Your task to perform on an android device: search for console tables on article.com Image 0: 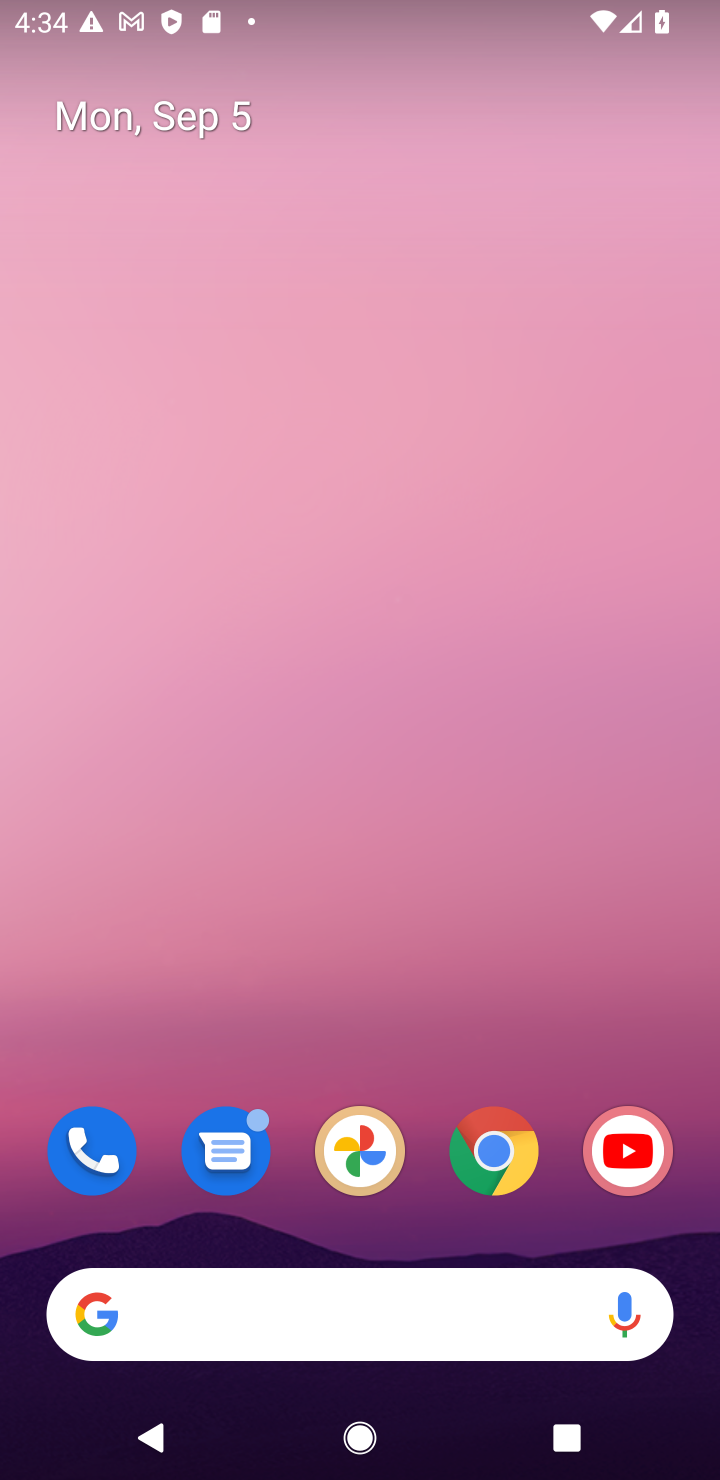
Step 0: click (515, 1178)
Your task to perform on an android device: search for console tables on article.com Image 1: 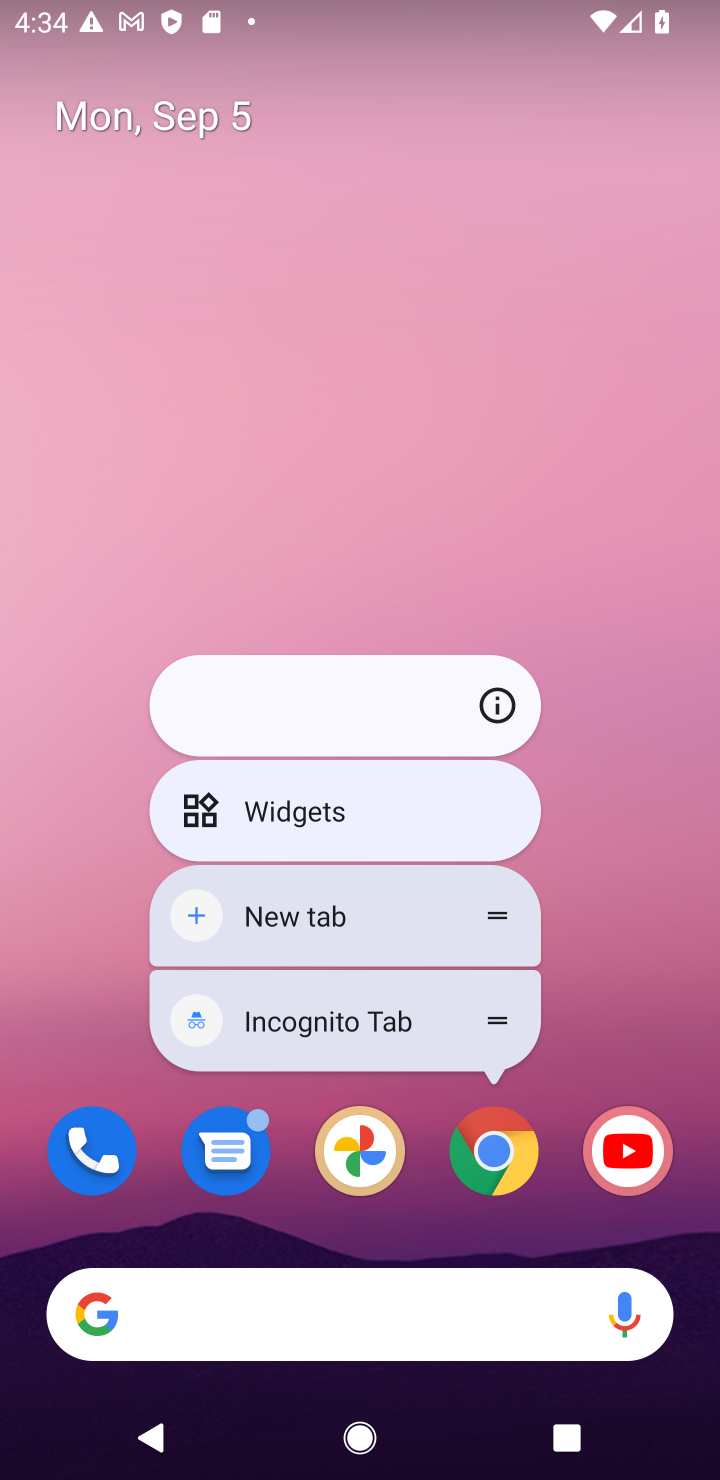
Step 1: click (515, 1178)
Your task to perform on an android device: search for console tables on article.com Image 2: 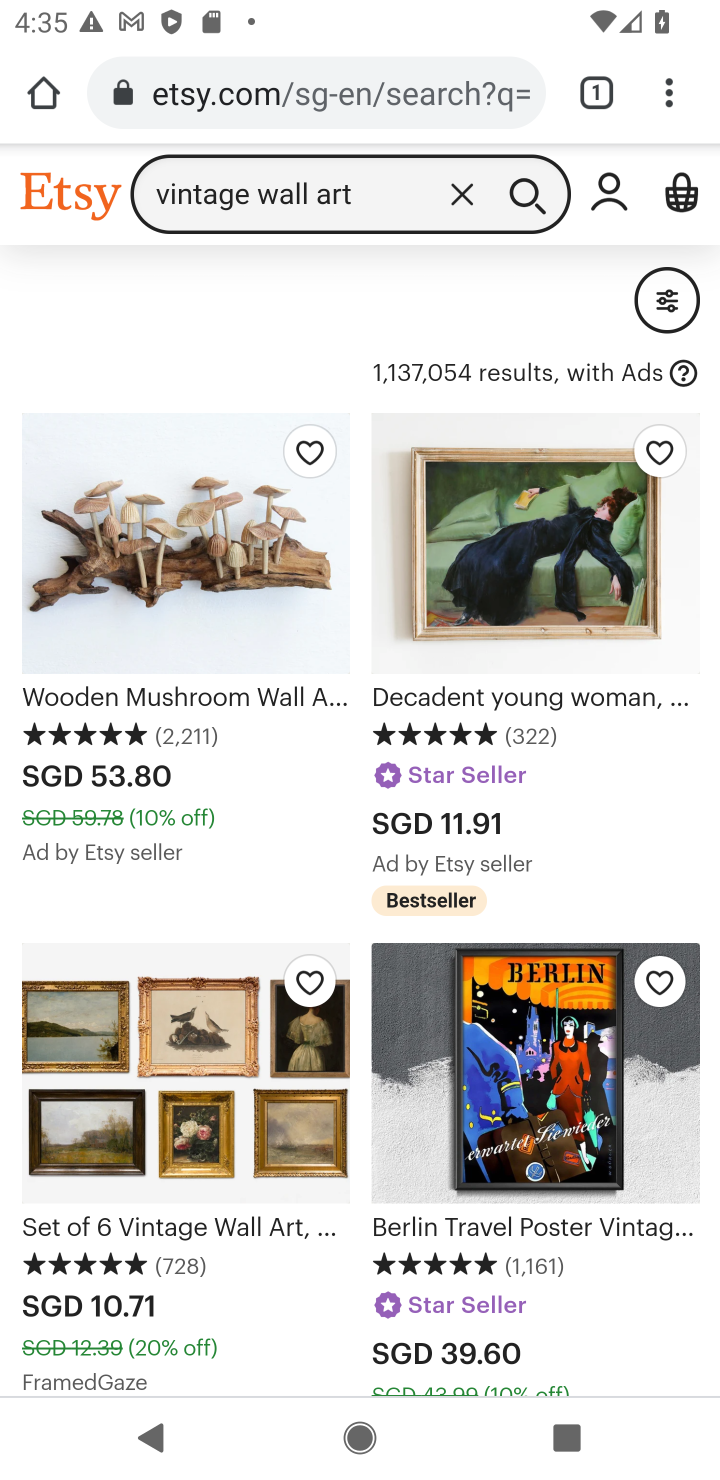
Step 2: click (489, 98)
Your task to perform on an android device: search for console tables on article.com Image 3: 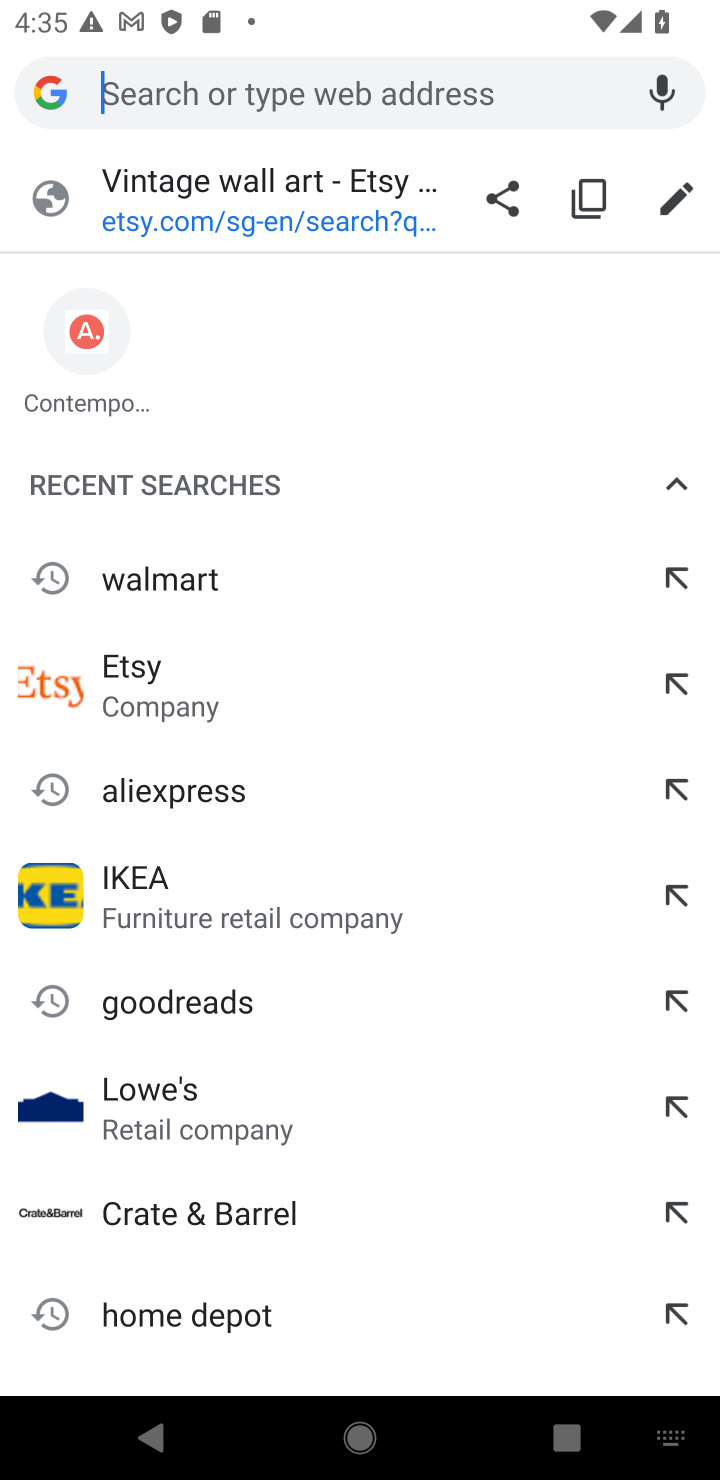
Step 3: type "article.com"
Your task to perform on an android device: search for console tables on article.com Image 4: 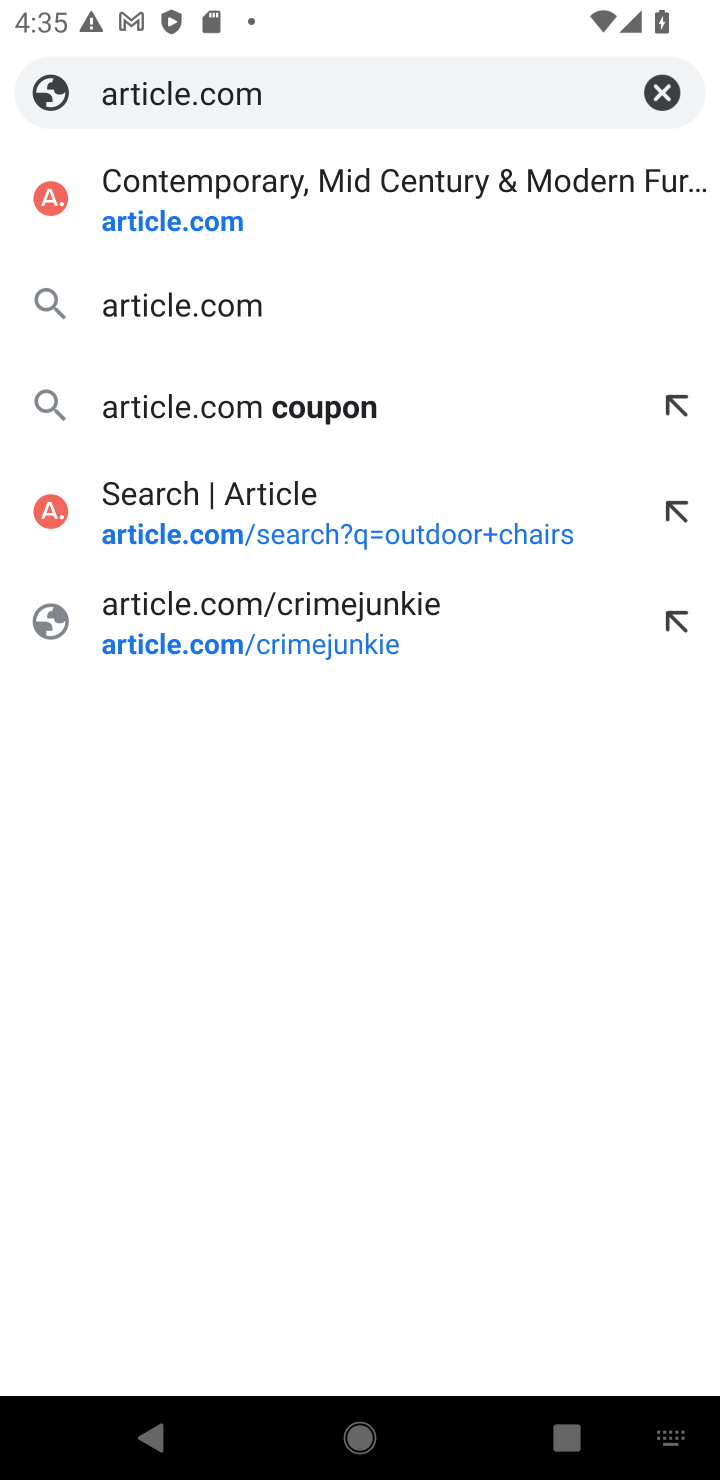
Step 4: click (308, 195)
Your task to perform on an android device: search for console tables on article.com Image 5: 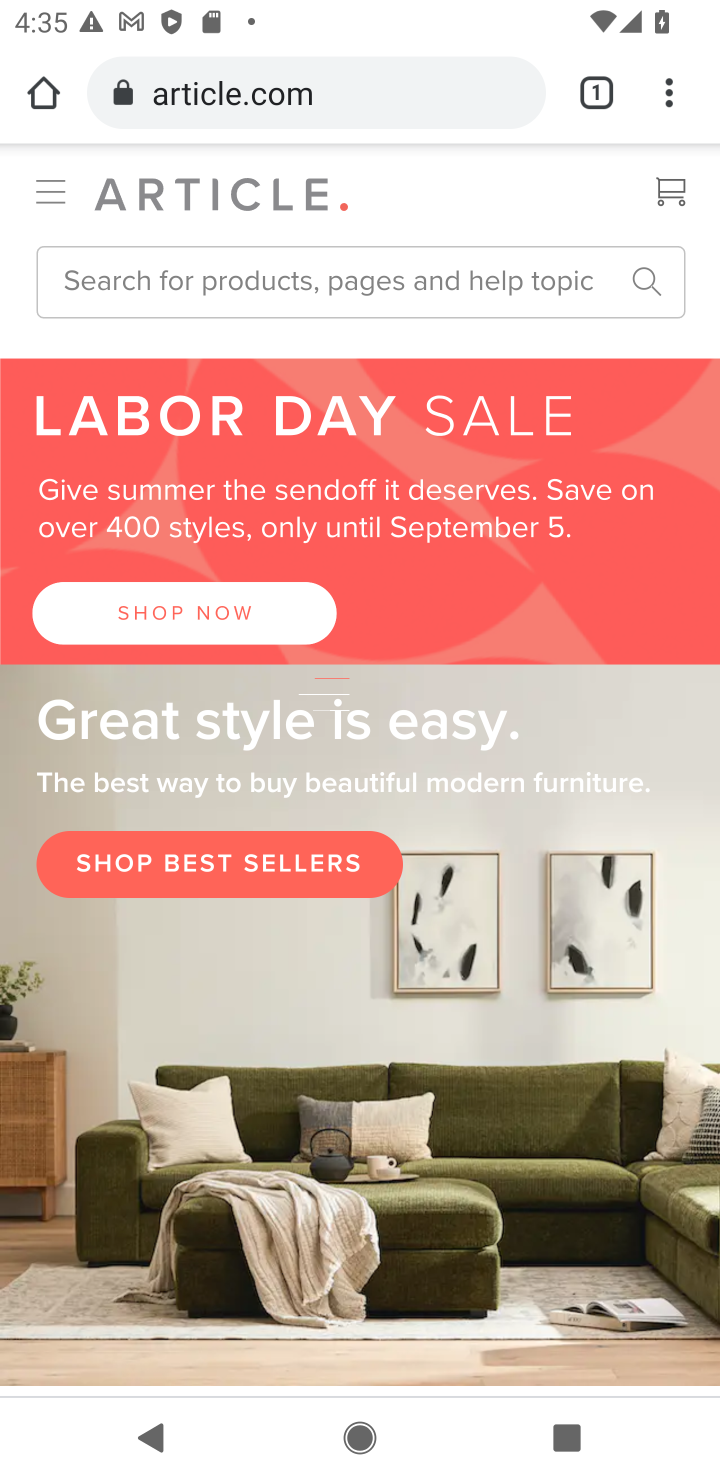
Step 5: click (479, 288)
Your task to perform on an android device: search for console tables on article.com Image 6: 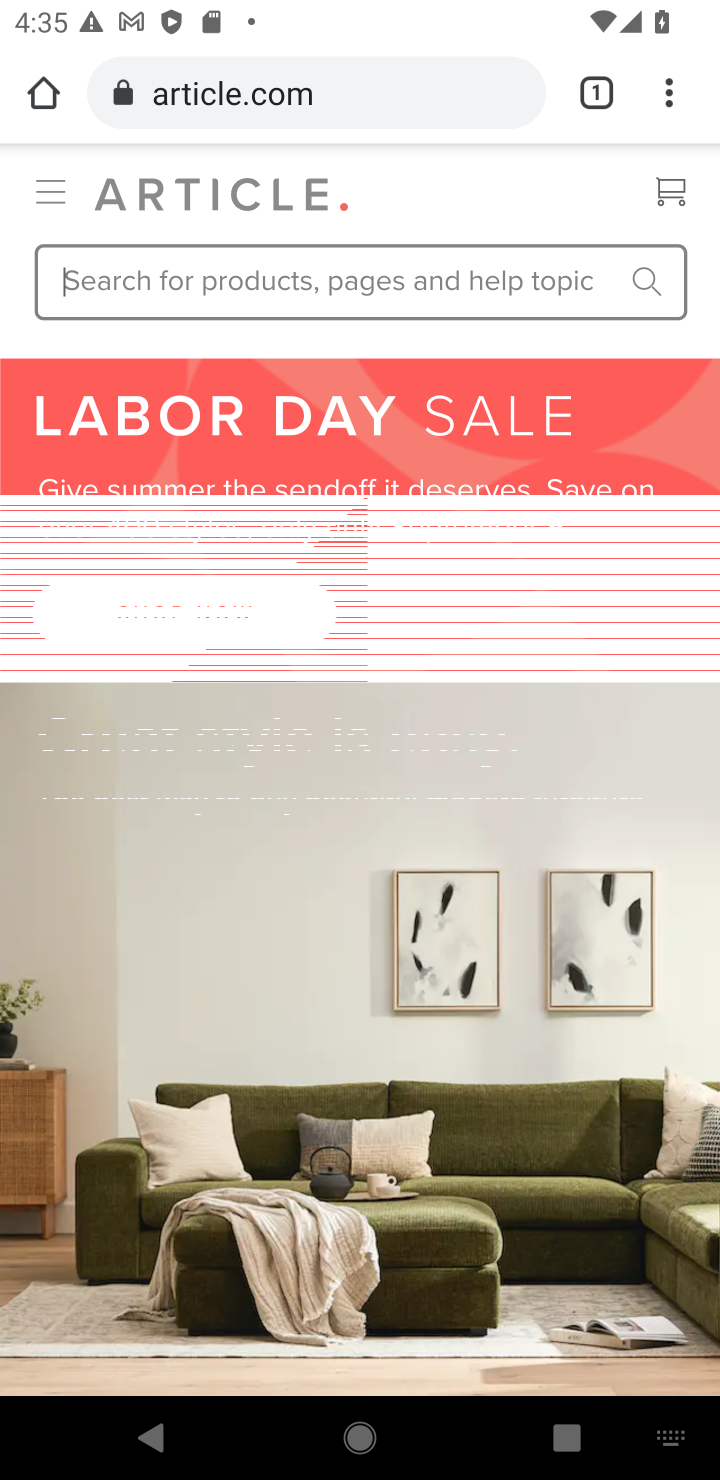
Step 6: click (420, 284)
Your task to perform on an android device: search for console tables on article.com Image 7: 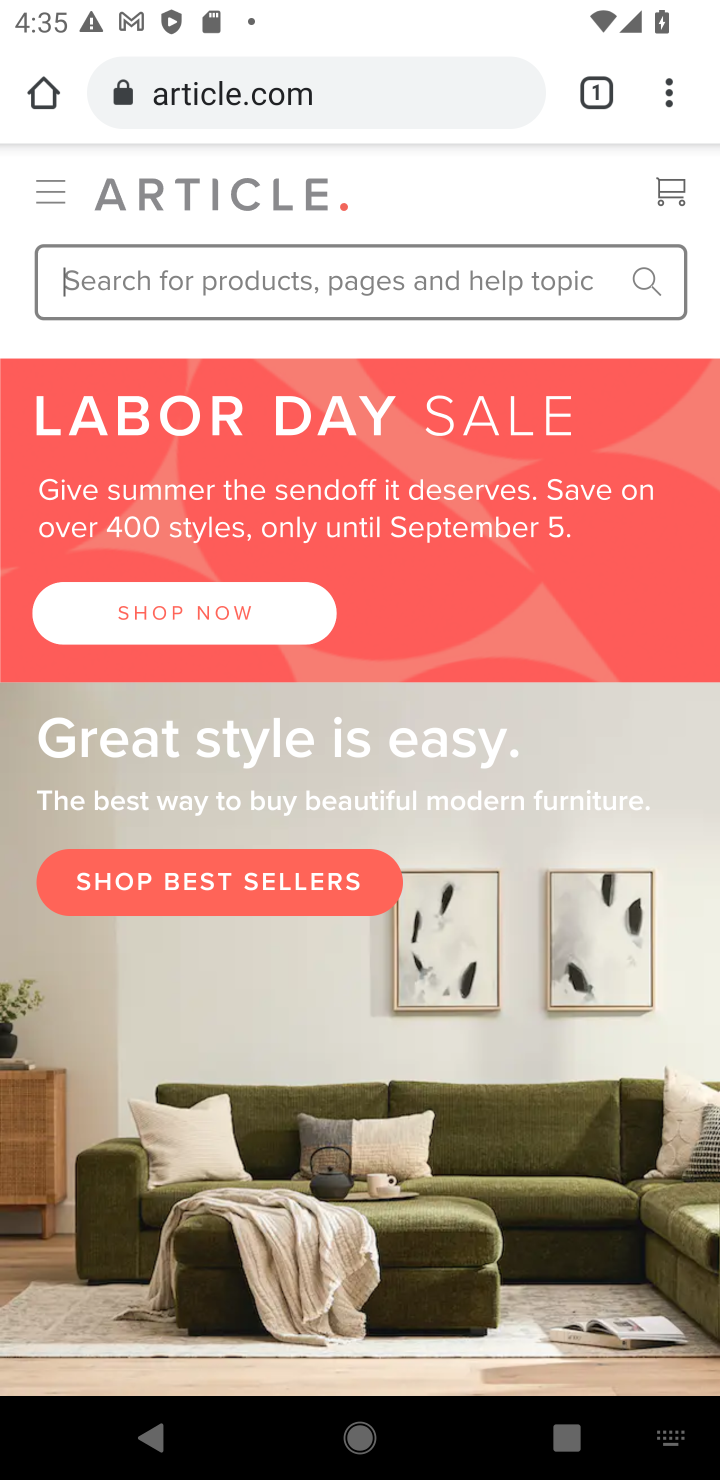
Step 7: type "console tables"
Your task to perform on an android device: search for console tables on article.com Image 8: 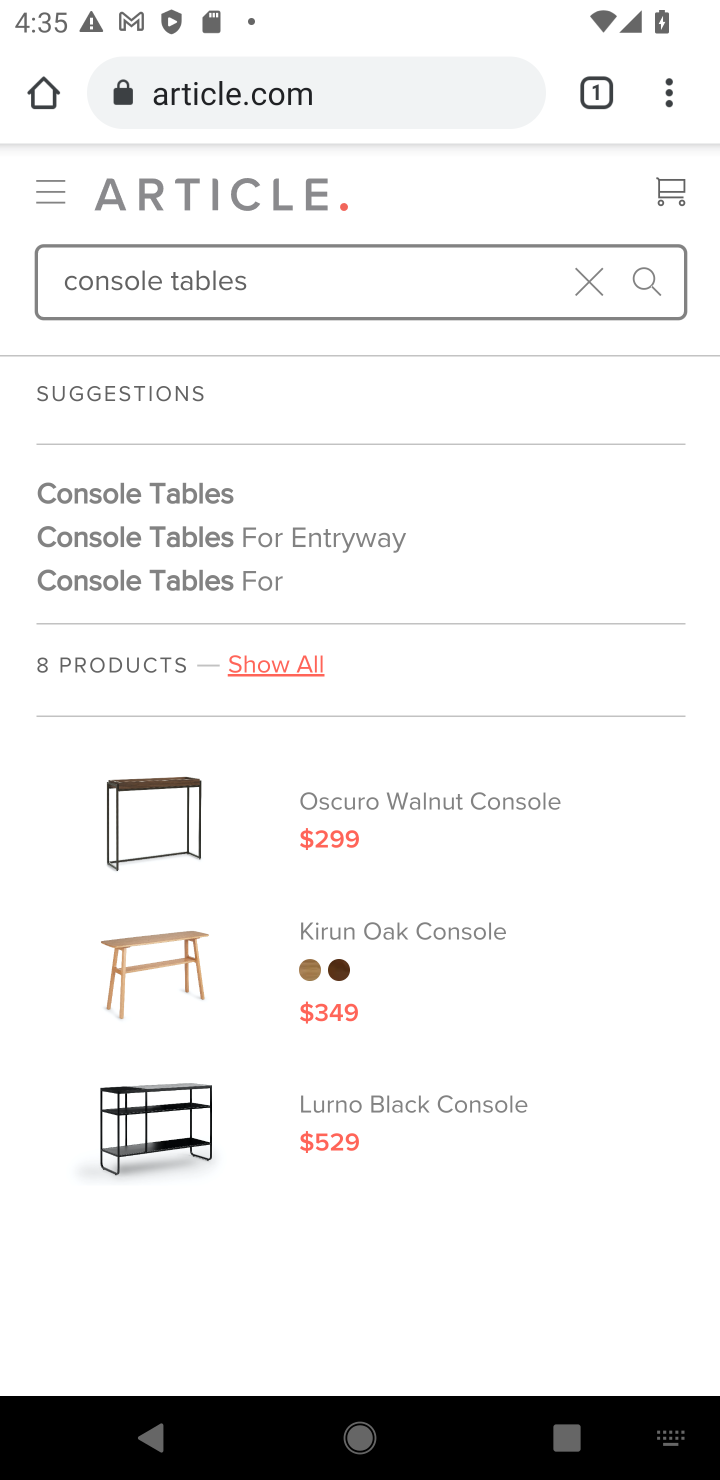
Step 8: click (653, 289)
Your task to perform on an android device: search for console tables on article.com Image 9: 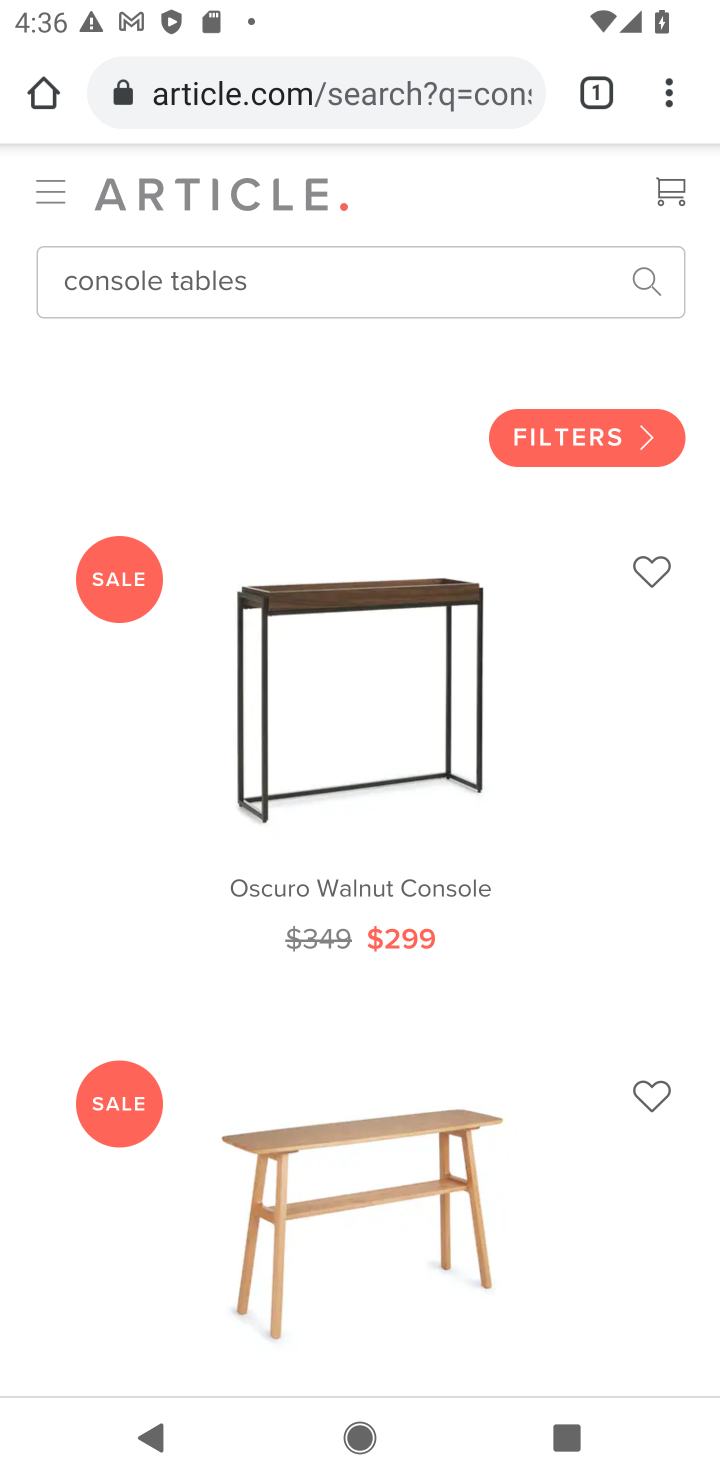
Step 9: task complete